Your task to perform on an android device: Add "acer nitro" to the cart on costco Image 0: 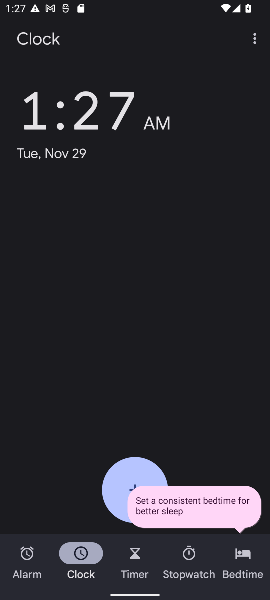
Step 0: press home button
Your task to perform on an android device: Add "acer nitro" to the cart on costco Image 1: 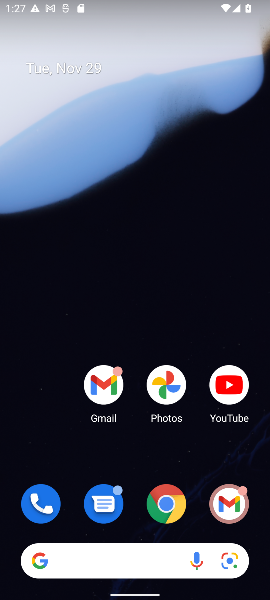
Step 1: click (167, 507)
Your task to perform on an android device: Add "acer nitro" to the cart on costco Image 2: 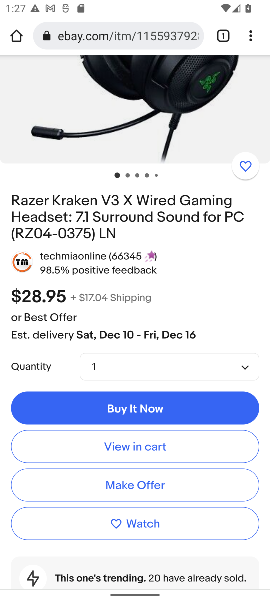
Step 2: click (91, 31)
Your task to perform on an android device: Add "acer nitro" to the cart on costco Image 3: 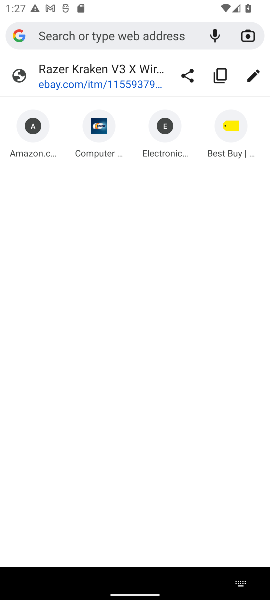
Step 3: type "costco.com"
Your task to perform on an android device: Add "acer nitro" to the cart on costco Image 4: 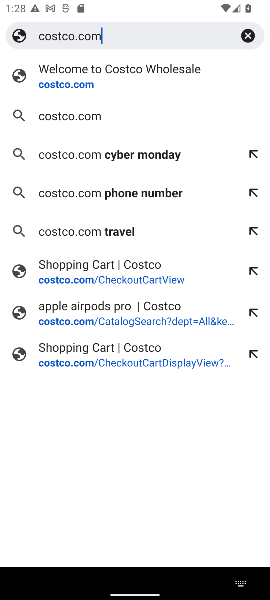
Step 4: click (60, 78)
Your task to perform on an android device: Add "acer nitro" to the cart on costco Image 5: 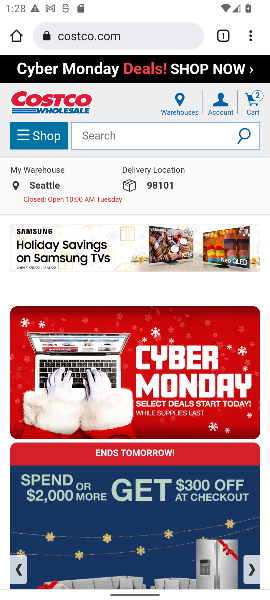
Step 5: click (109, 131)
Your task to perform on an android device: Add "acer nitro" to the cart on costco Image 6: 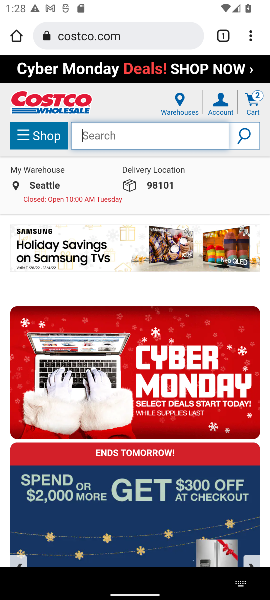
Step 6: type "acer nitro"
Your task to perform on an android device: Add "acer nitro" to the cart on costco Image 7: 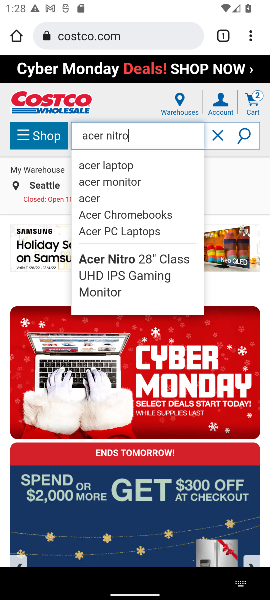
Step 7: click (244, 138)
Your task to perform on an android device: Add "acer nitro" to the cart on costco Image 8: 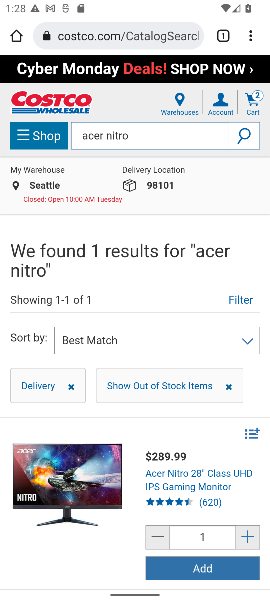
Step 8: drag from (142, 331) to (143, 262)
Your task to perform on an android device: Add "acer nitro" to the cart on costco Image 9: 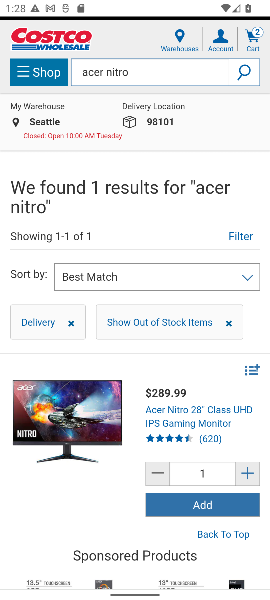
Step 9: click (201, 511)
Your task to perform on an android device: Add "acer nitro" to the cart on costco Image 10: 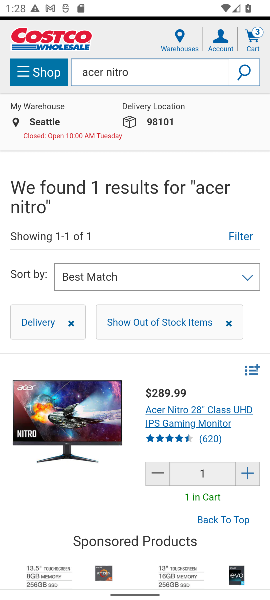
Step 10: task complete